Your task to perform on an android device: Go to Maps Image 0: 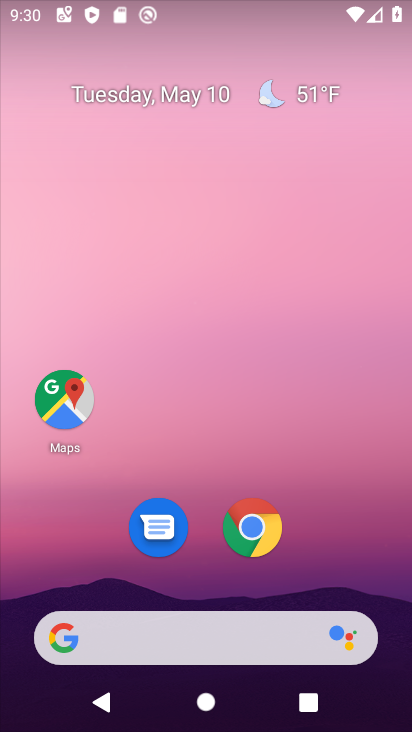
Step 0: drag from (205, 728) to (198, 158)
Your task to perform on an android device: Go to Maps Image 1: 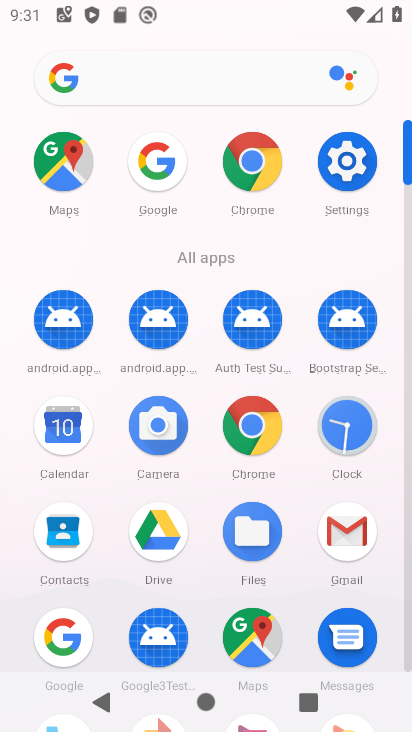
Step 1: click (259, 633)
Your task to perform on an android device: Go to Maps Image 2: 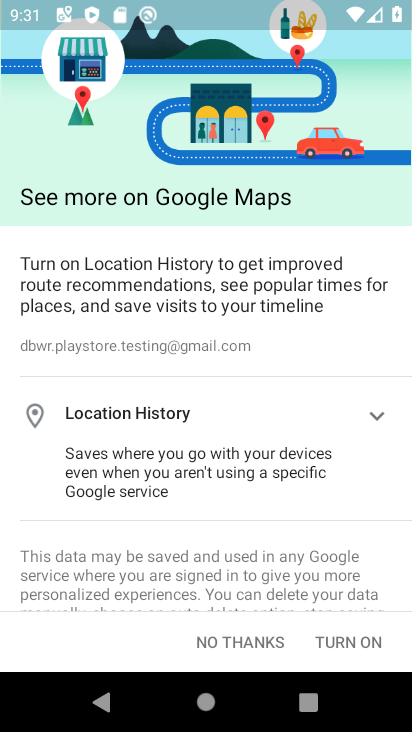
Step 2: click (362, 638)
Your task to perform on an android device: Go to Maps Image 3: 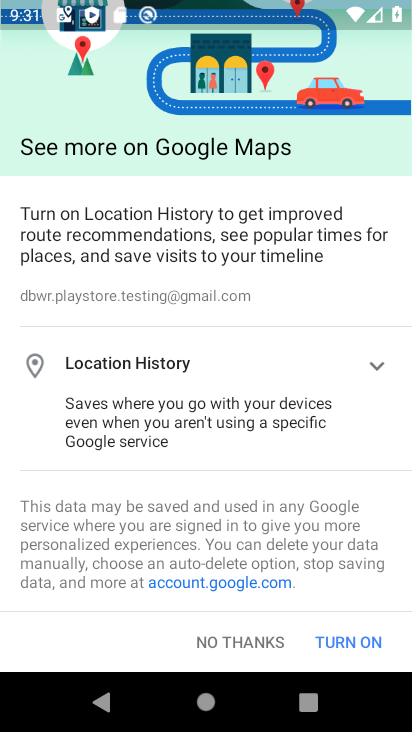
Step 3: click (362, 638)
Your task to perform on an android device: Go to Maps Image 4: 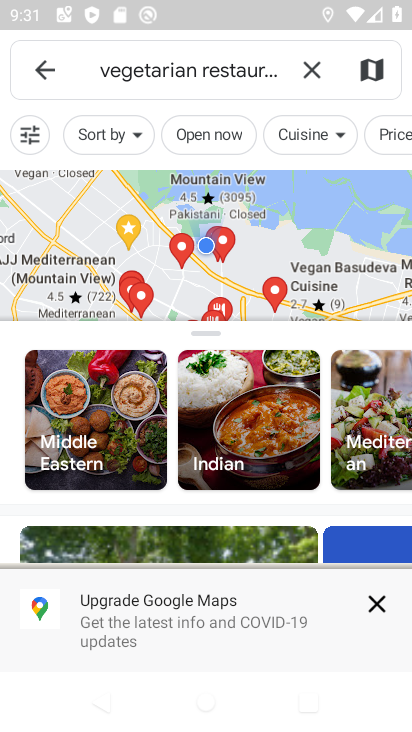
Step 4: task complete